Your task to perform on an android device: Go to Yahoo.com Image 0: 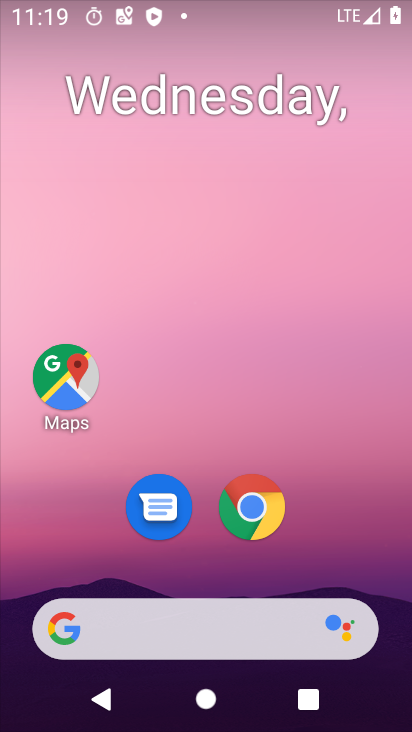
Step 0: click (254, 509)
Your task to perform on an android device: Go to Yahoo.com Image 1: 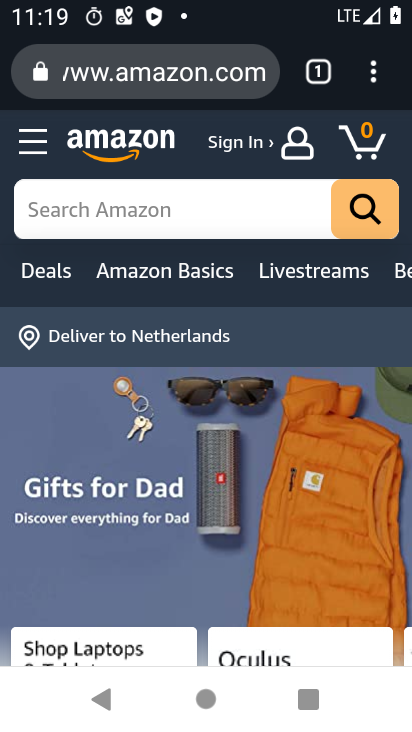
Step 1: click (374, 82)
Your task to perform on an android device: Go to Yahoo.com Image 2: 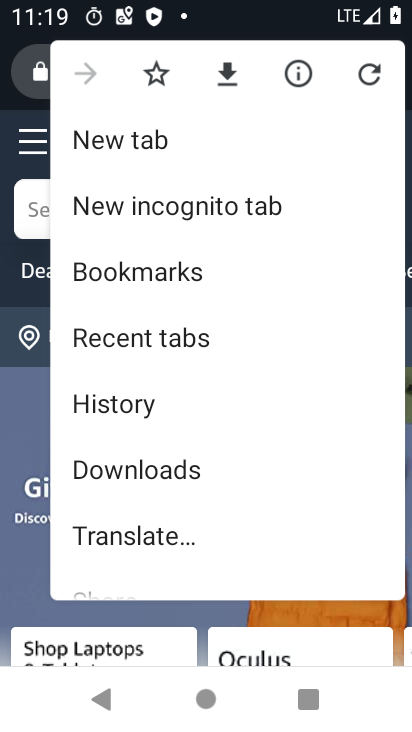
Step 2: click (147, 140)
Your task to perform on an android device: Go to Yahoo.com Image 3: 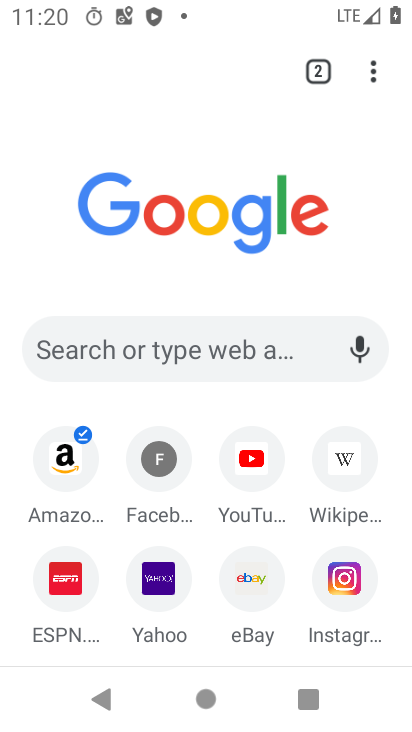
Step 3: click (164, 586)
Your task to perform on an android device: Go to Yahoo.com Image 4: 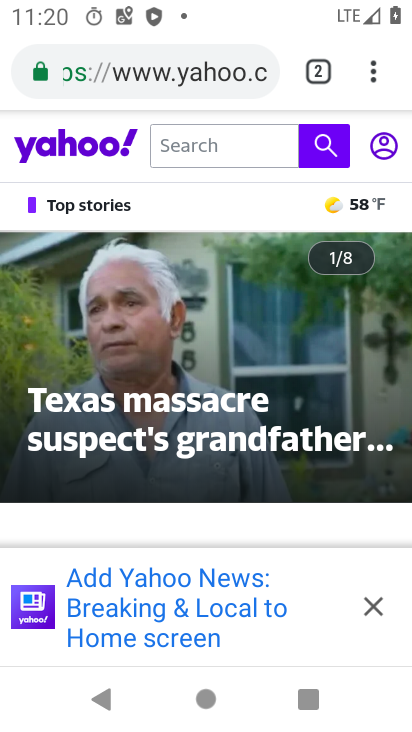
Step 4: task complete